Your task to perform on an android device: open a new tab in the chrome app Image 0: 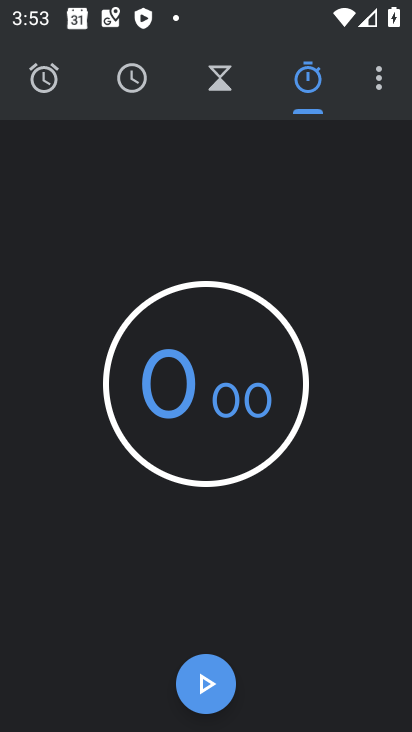
Step 0: press back button
Your task to perform on an android device: open a new tab in the chrome app Image 1: 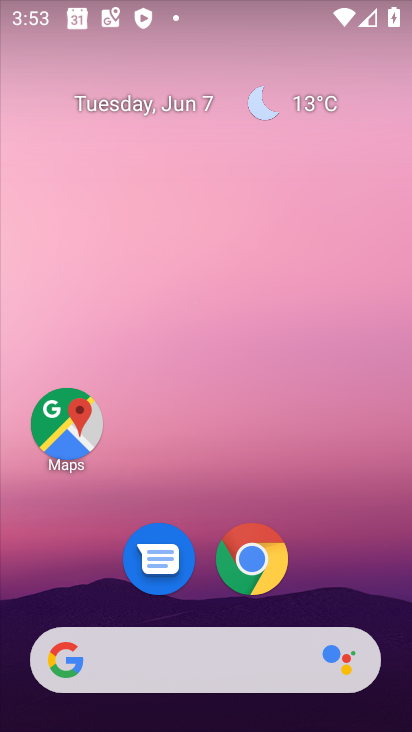
Step 1: click (254, 558)
Your task to perform on an android device: open a new tab in the chrome app Image 2: 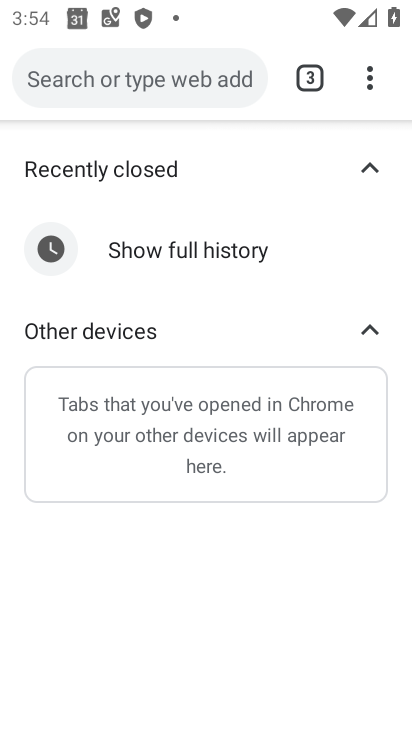
Step 2: click (369, 76)
Your task to perform on an android device: open a new tab in the chrome app Image 3: 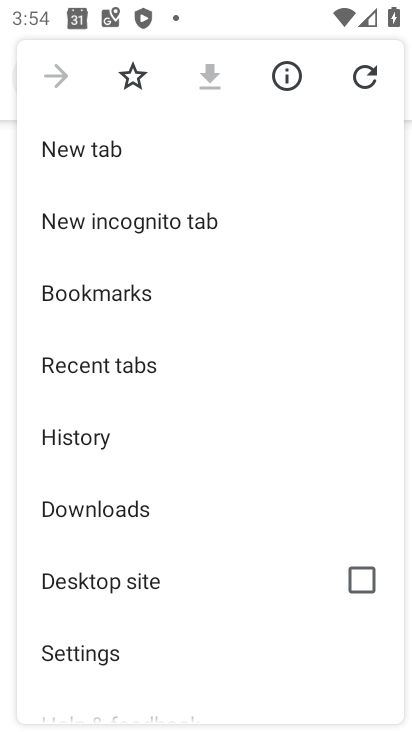
Step 3: click (106, 150)
Your task to perform on an android device: open a new tab in the chrome app Image 4: 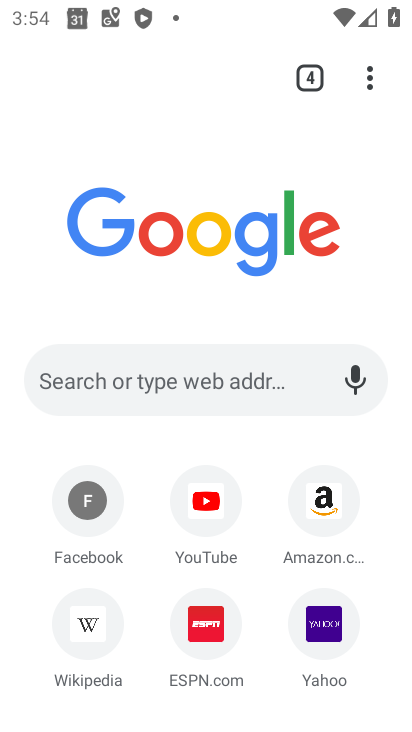
Step 4: task complete